Your task to perform on an android device: change your default location settings in chrome Image 0: 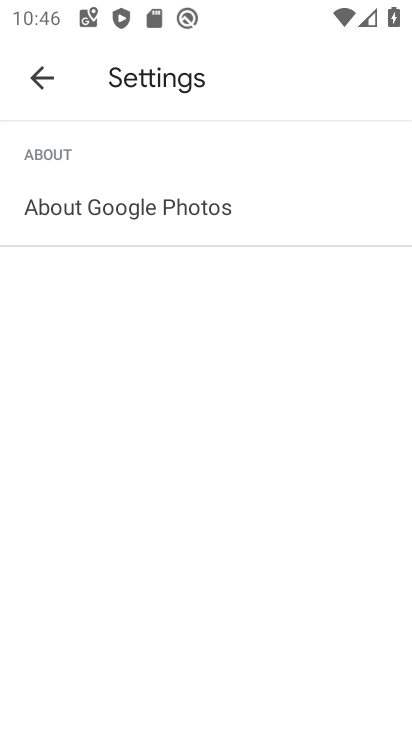
Step 0: press home button
Your task to perform on an android device: change your default location settings in chrome Image 1: 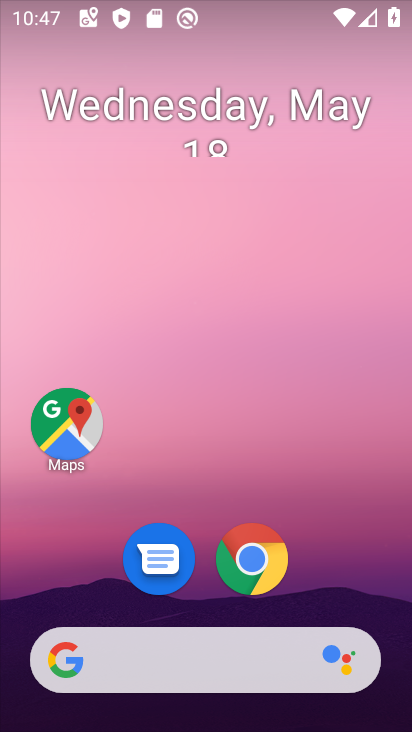
Step 1: click (248, 543)
Your task to perform on an android device: change your default location settings in chrome Image 2: 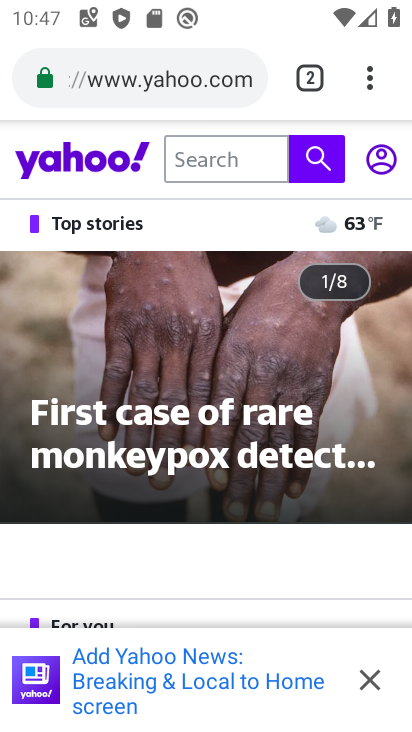
Step 2: drag from (374, 69) to (116, 623)
Your task to perform on an android device: change your default location settings in chrome Image 3: 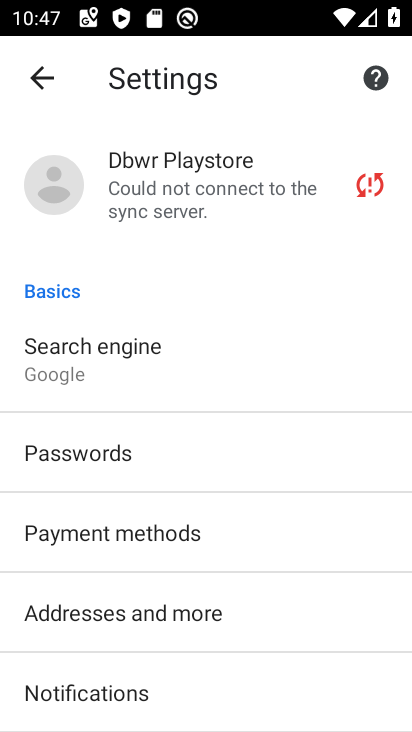
Step 3: drag from (138, 649) to (312, 50)
Your task to perform on an android device: change your default location settings in chrome Image 4: 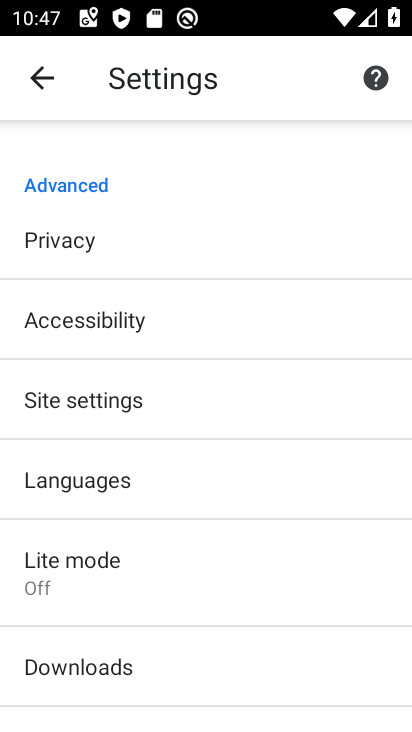
Step 4: click (80, 408)
Your task to perform on an android device: change your default location settings in chrome Image 5: 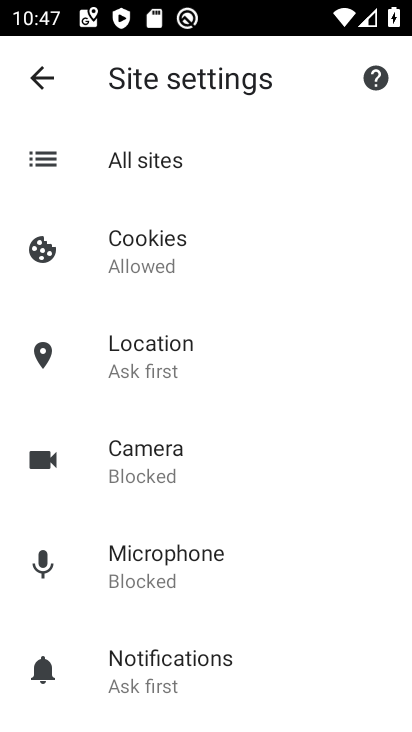
Step 5: click (201, 359)
Your task to perform on an android device: change your default location settings in chrome Image 6: 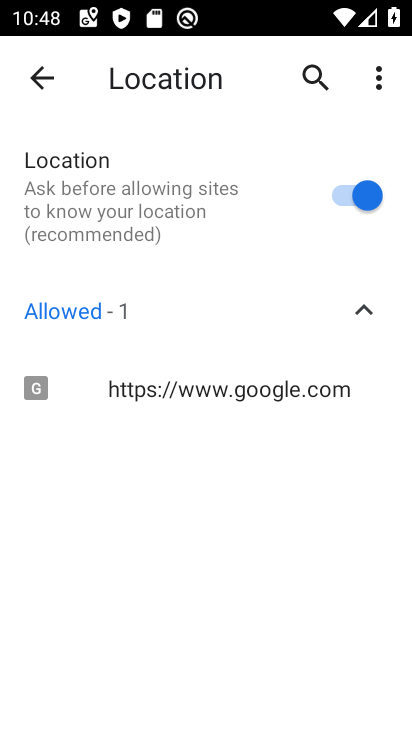
Step 6: click (346, 191)
Your task to perform on an android device: change your default location settings in chrome Image 7: 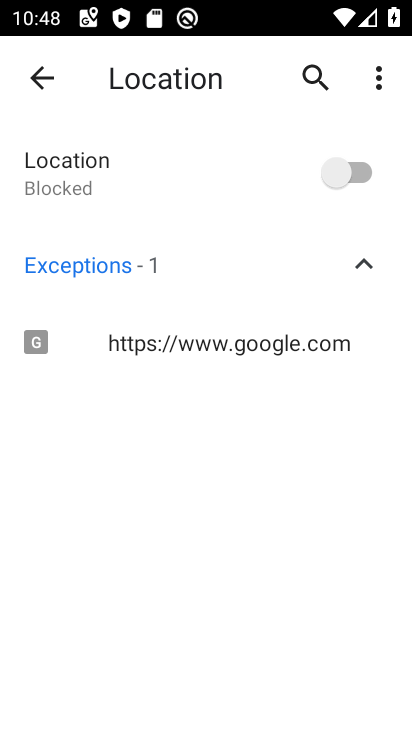
Step 7: task complete